Your task to perform on an android device: Open Youtube and go to the subscriptions tab Image 0: 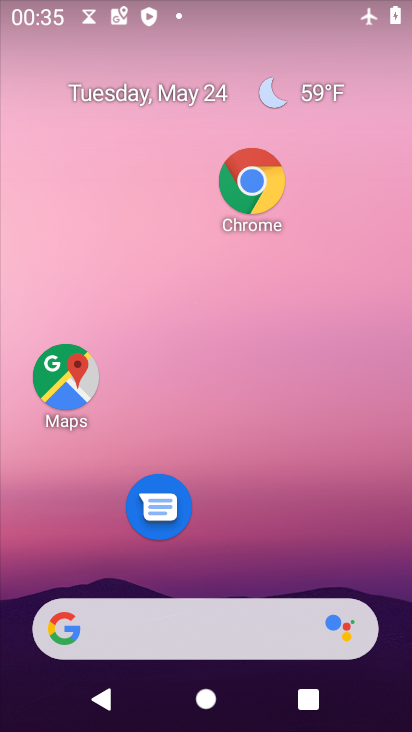
Step 0: drag from (313, 559) to (353, 229)
Your task to perform on an android device: Open Youtube and go to the subscriptions tab Image 1: 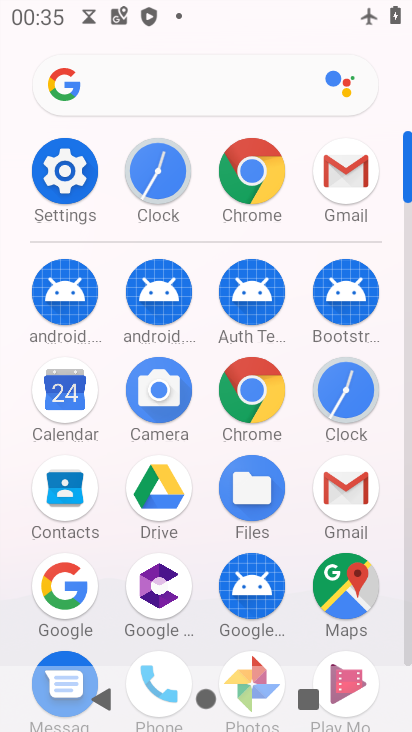
Step 1: drag from (281, 524) to (298, 219)
Your task to perform on an android device: Open Youtube and go to the subscriptions tab Image 2: 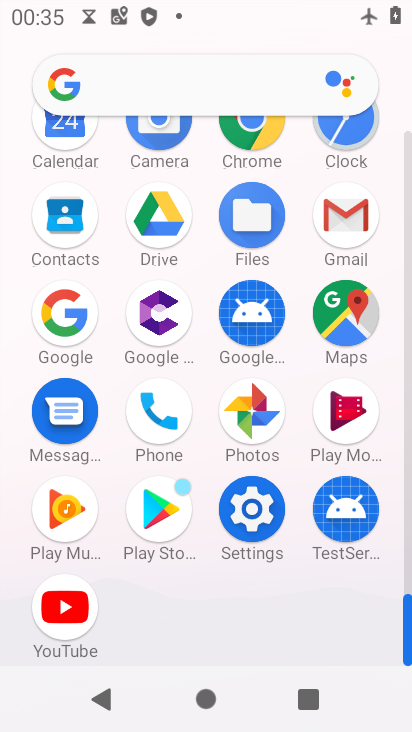
Step 2: click (60, 623)
Your task to perform on an android device: Open Youtube and go to the subscriptions tab Image 3: 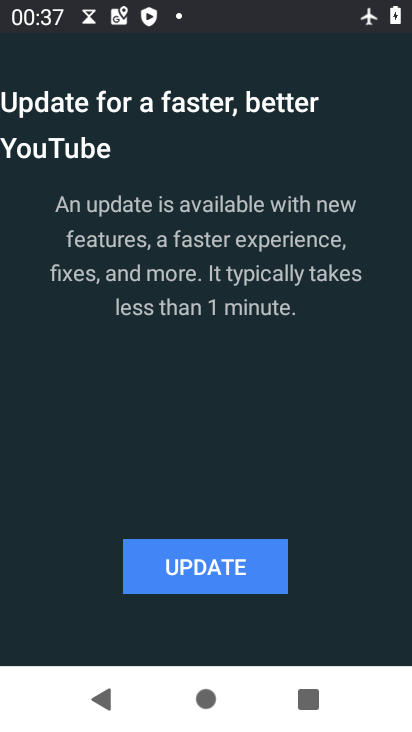
Step 3: task complete